Your task to perform on an android device: Open settings Image 0: 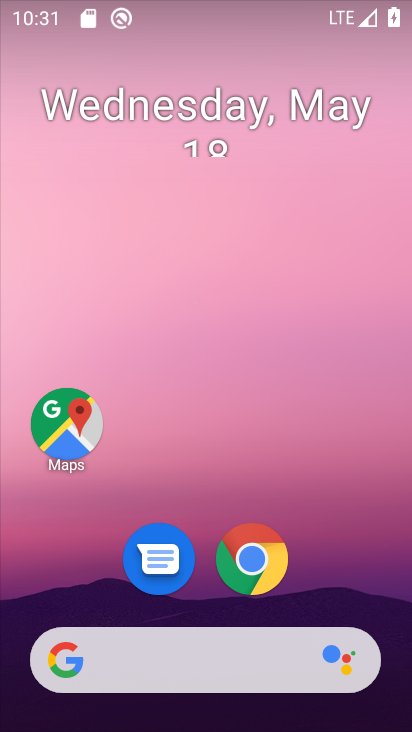
Step 0: drag from (215, 586) to (290, 103)
Your task to perform on an android device: Open settings Image 1: 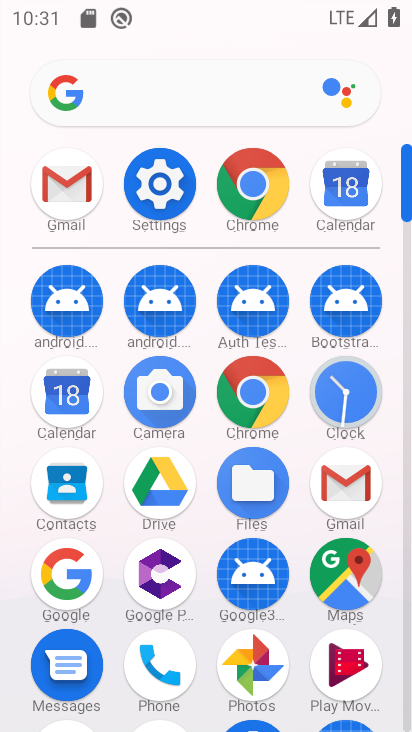
Step 1: click (175, 185)
Your task to perform on an android device: Open settings Image 2: 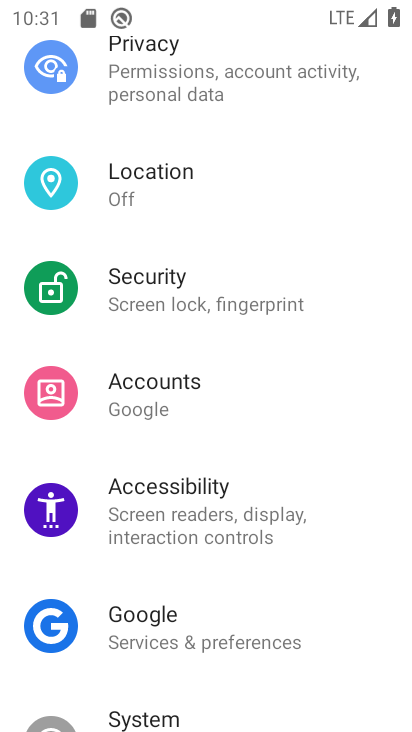
Step 2: task complete